Your task to perform on an android device: What's the weather today? Image 0: 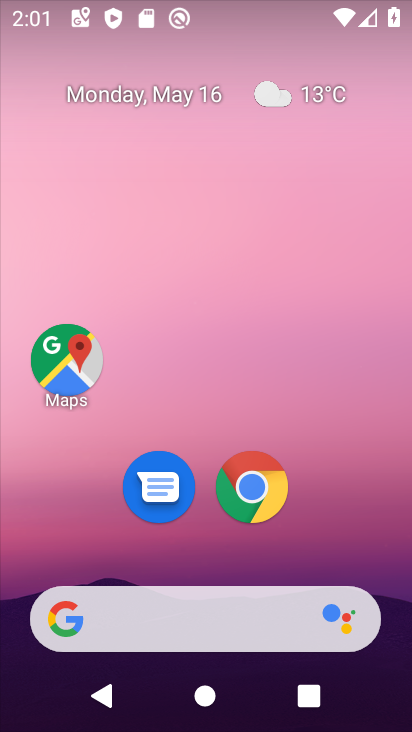
Step 0: drag from (340, 493) to (249, 3)
Your task to perform on an android device: What's the weather today? Image 1: 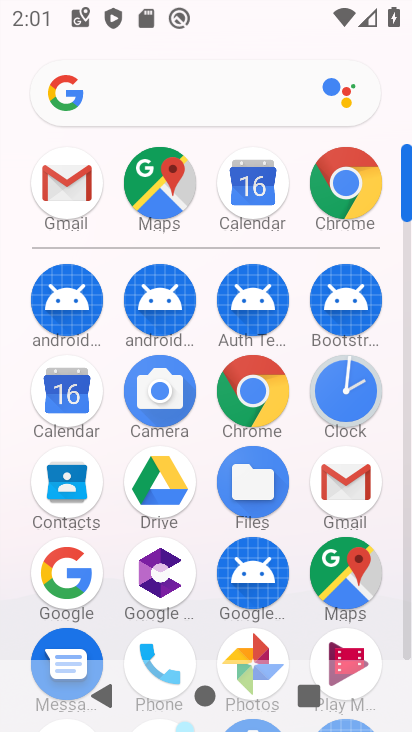
Step 1: drag from (13, 549) to (8, 256)
Your task to perform on an android device: What's the weather today? Image 2: 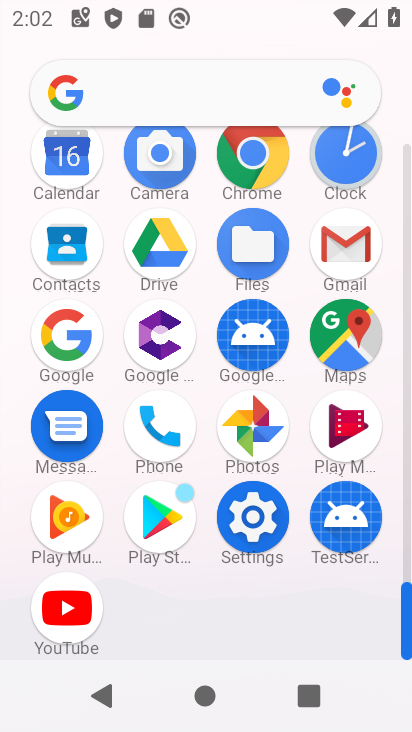
Step 2: click (251, 147)
Your task to perform on an android device: What's the weather today? Image 3: 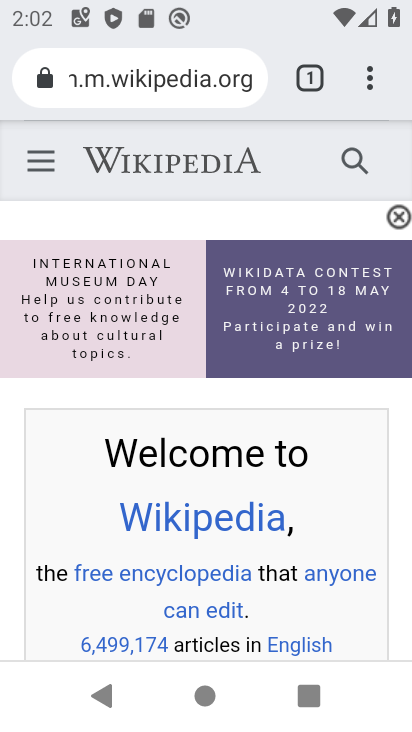
Step 3: click (180, 76)
Your task to perform on an android device: What's the weather today? Image 4: 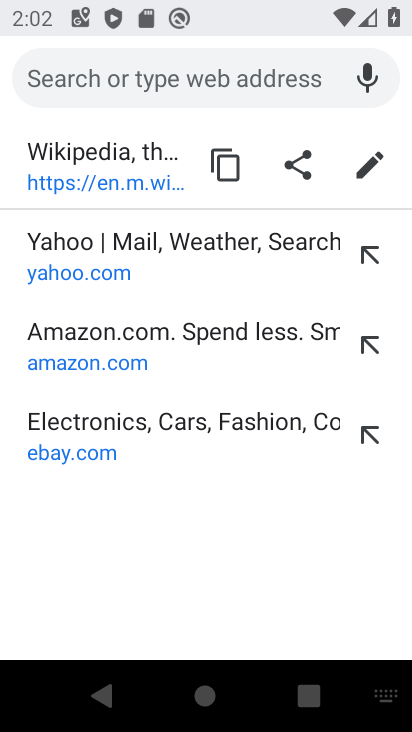
Step 4: type "What's the weather today?"
Your task to perform on an android device: What's the weather today? Image 5: 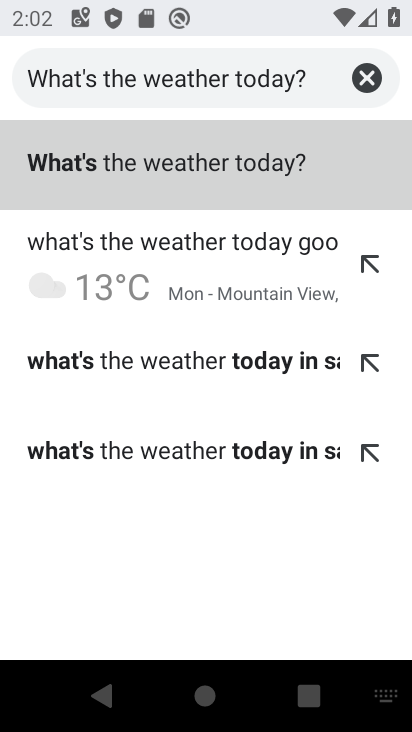
Step 5: click (173, 137)
Your task to perform on an android device: What's the weather today? Image 6: 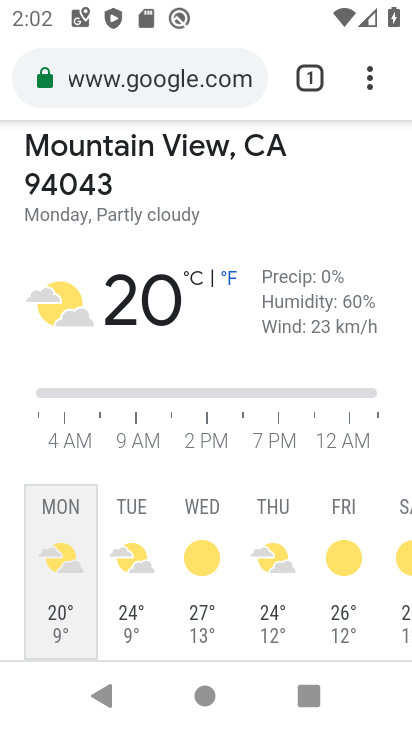
Step 6: task complete